Your task to perform on an android device: open app "Firefox Browser" (install if not already installed), go to login, and select forgot password Image 0: 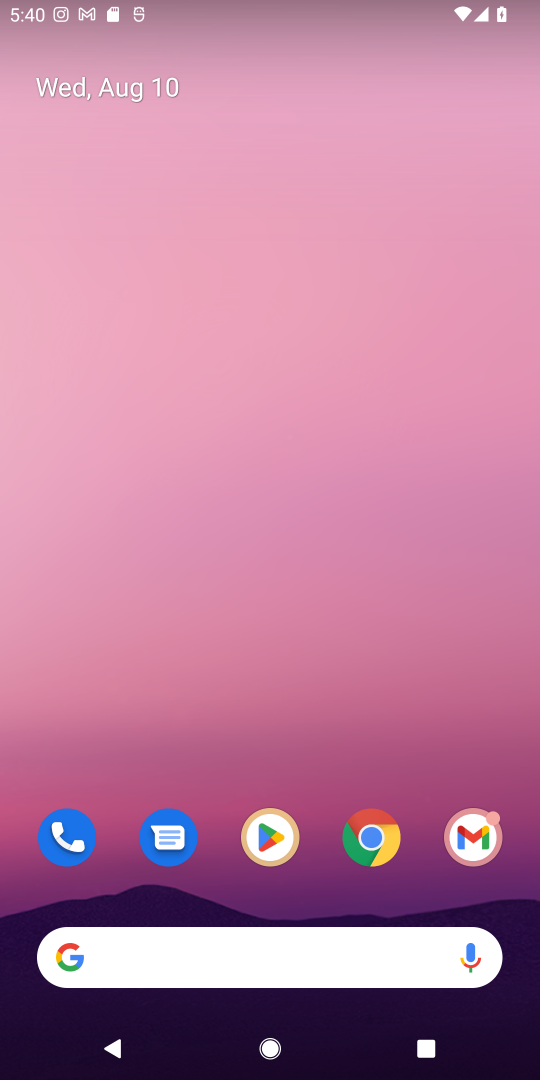
Step 0: press home button
Your task to perform on an android device: open app "Firefox Browser" (install if not already installed), go to login, and select forgot password Image 1: 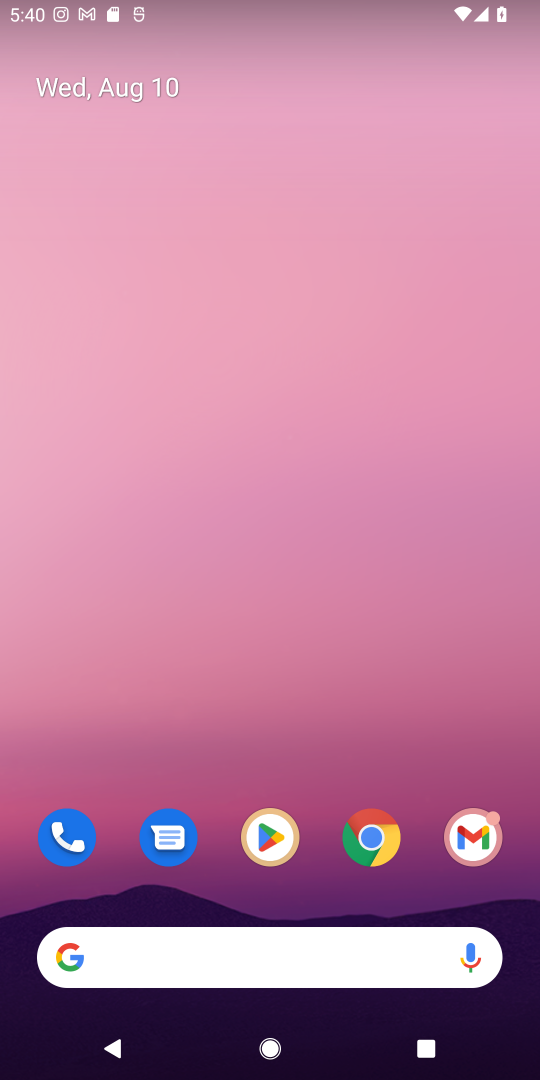
Step 1: click (267, 825)
Your task to perform on an android device: open app "Firefox Browser" (install if not already installed), go to login, and select forgot password Image 2: 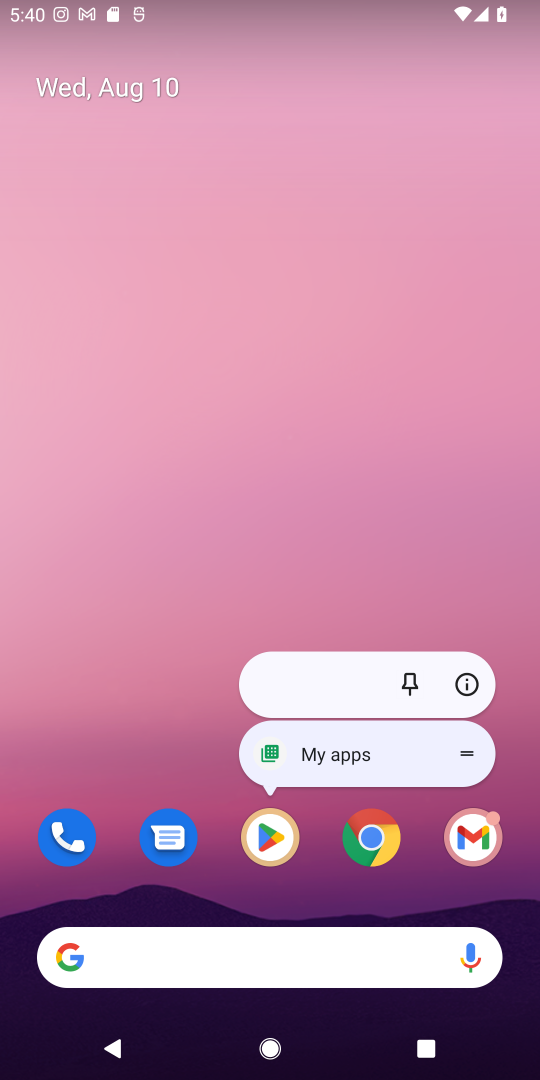
Step 2: click (267, 828)
Your task to perform on an android device: open app "Firefox Browser" (install if not already installed), go to login, and select forgot password Image 3: 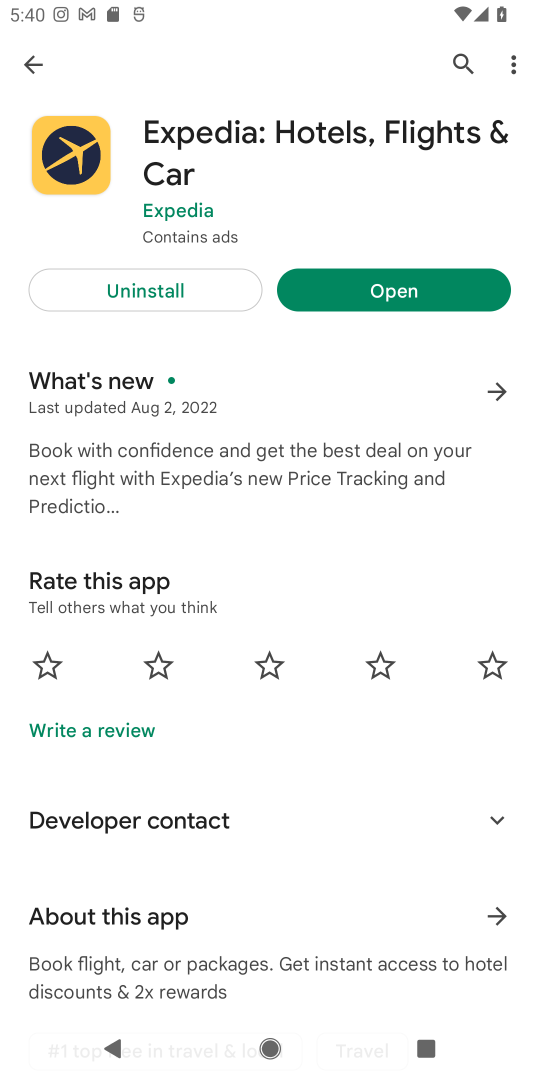
Step 3: click (464, 62)
Your task to perform on an android device: open app "Firefox Browser" (install if not already installed), go to login, and select forgot password Image 4: 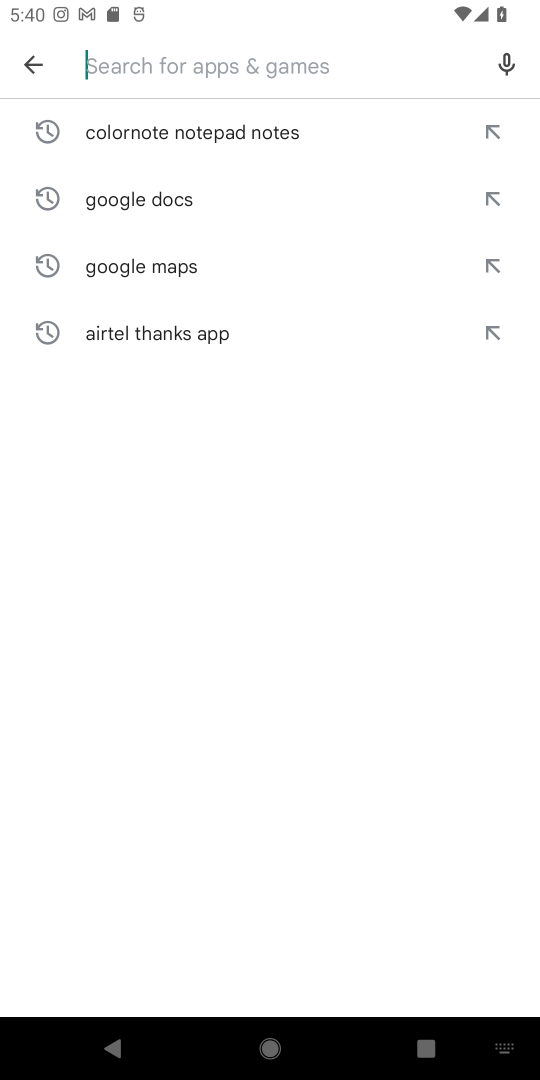
Step 4: type "Firefox Browser"
Your task to perform on an android device: open app "Firefox Browser" (install if not already installed), go to login, and select forgot password Image 5: 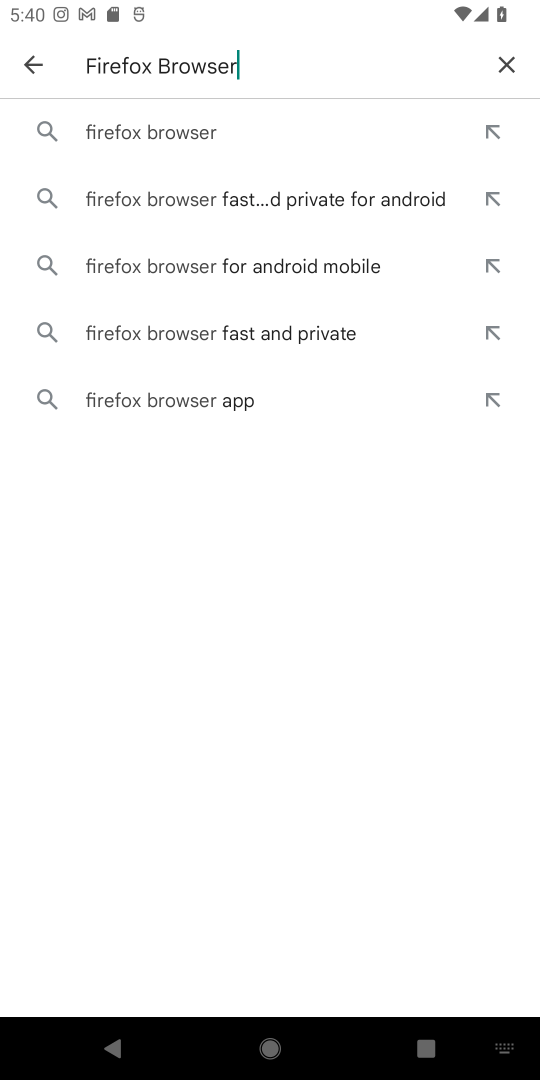
Step 5: click (186, 134)
Your task to perform on an android device: open app "Firefox Browser" (install if not already installed), go to login, and select forgot password Image 6: 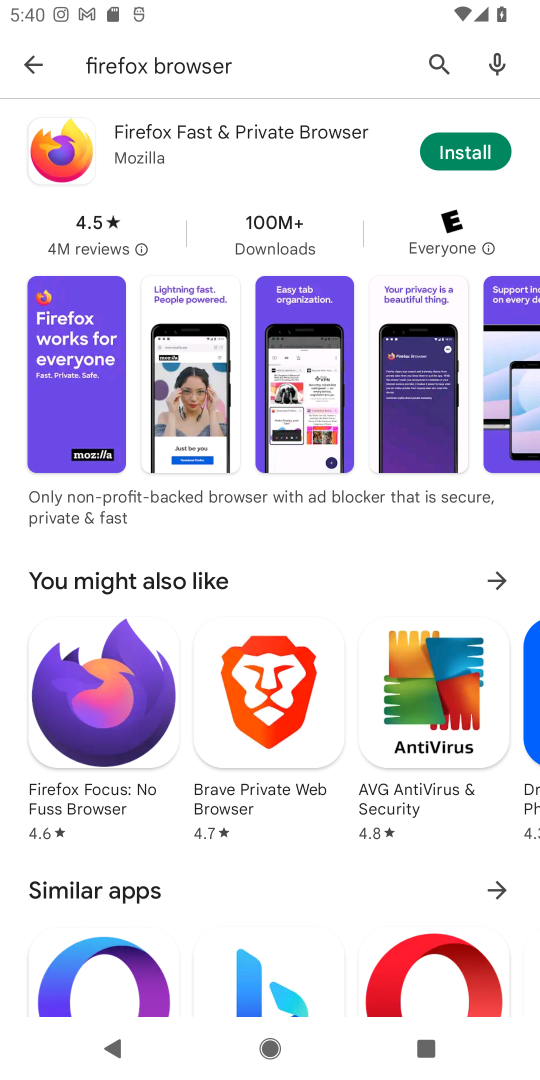
Step 6: click (465, 150)
Your task to perform on an android device: open app "Firefox Browser" (install if not already installed), go to login, and select forgot password Image 7: 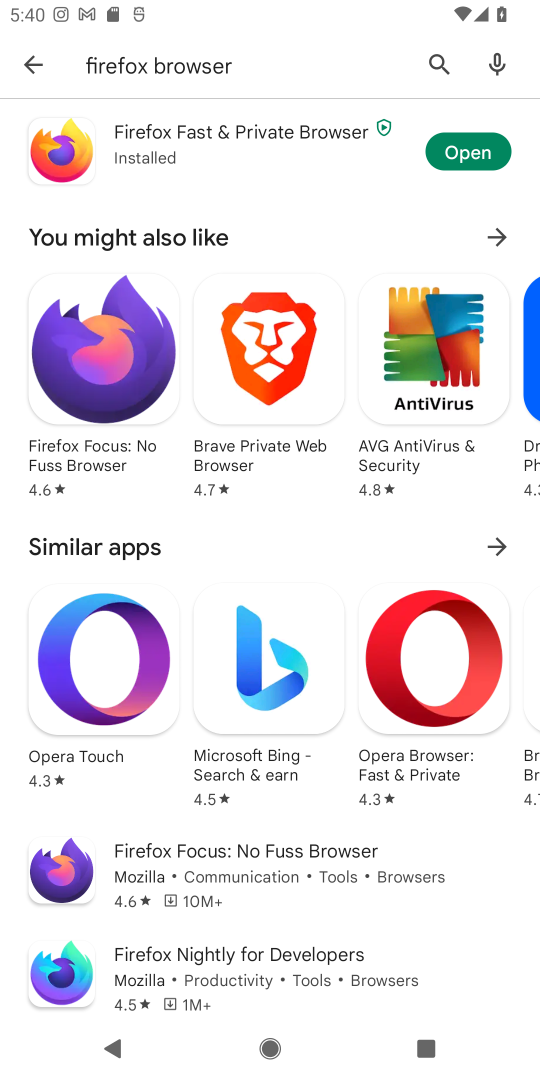
Step 7: click (467, 161)
Your task to perform on an android device: open app "Firefox Browser" (install if not already installed), go to login, and select forgot password Image 8: 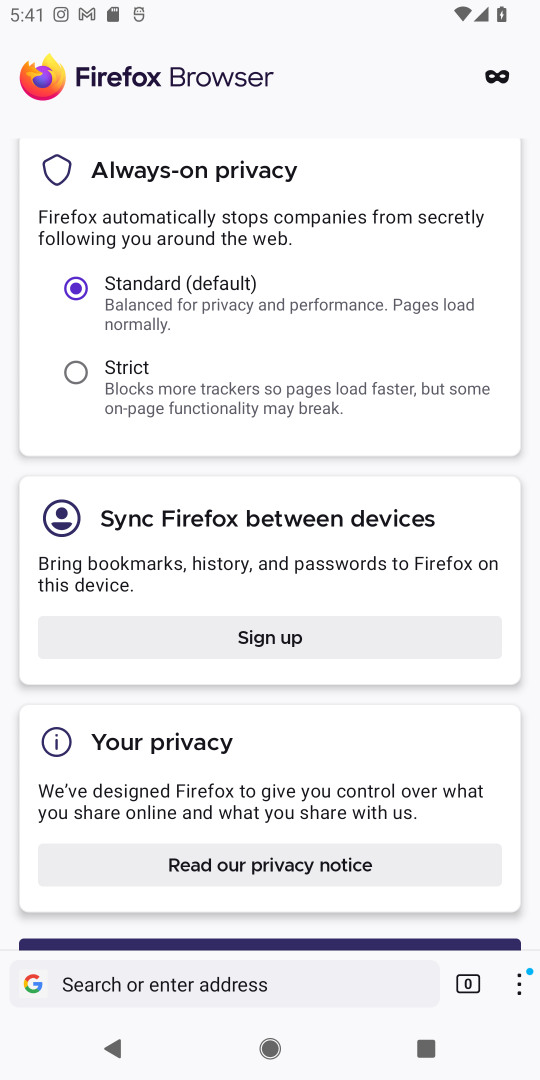
Step 8: task complete